Your task to perform on an android device: Open Google Maps Image 0: 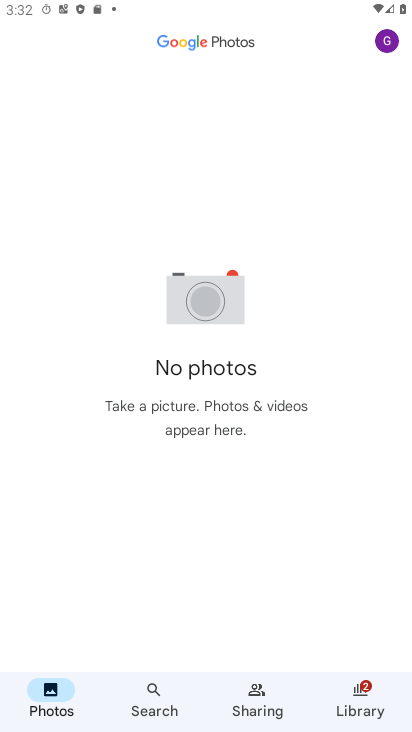
Step 0: press home button
Your task to perform on an android device: Open Google Maps Image 1: 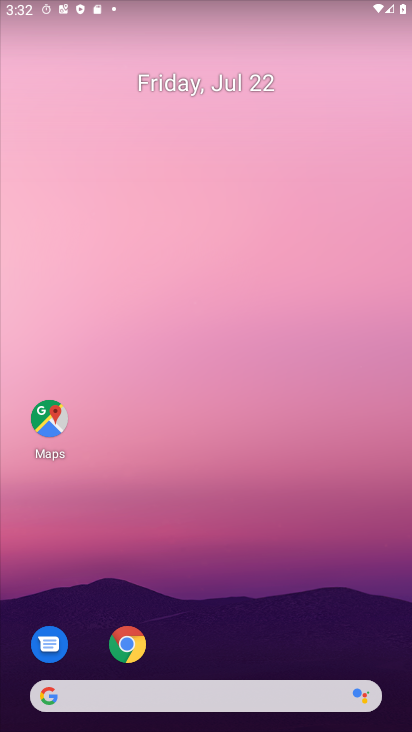
Step 1: drag from (257, 666) to (172, 17)
Your task to perform on an android device: Open Google Maps Image 2: 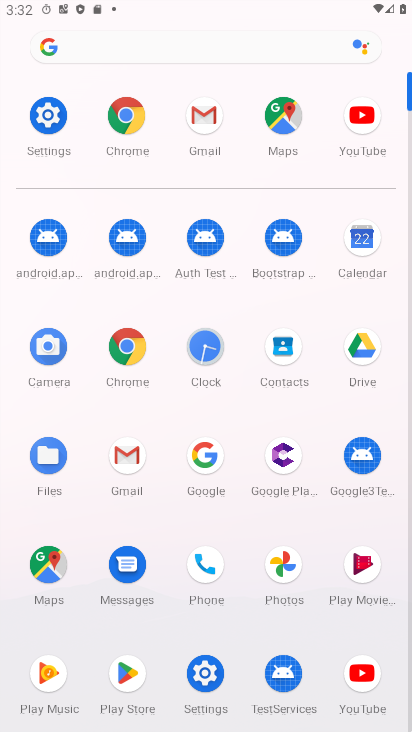
Step 2: click (268, 108)
Your task to perform on an android device: Open Google Maps Image 3: 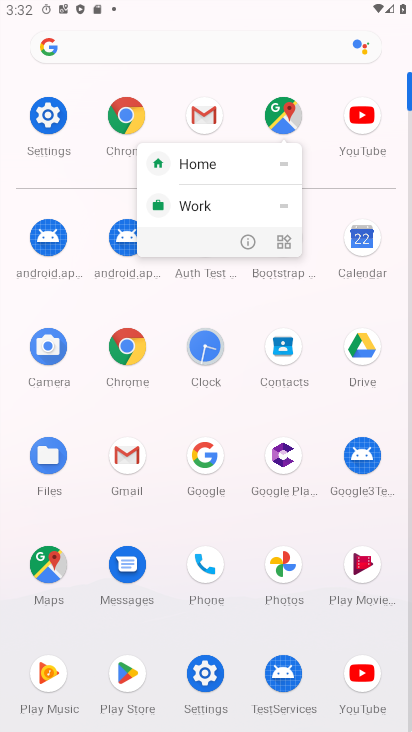
Step 3: click (280, 115)
Your task to perform on an android device: Open Google Maps Image 4: 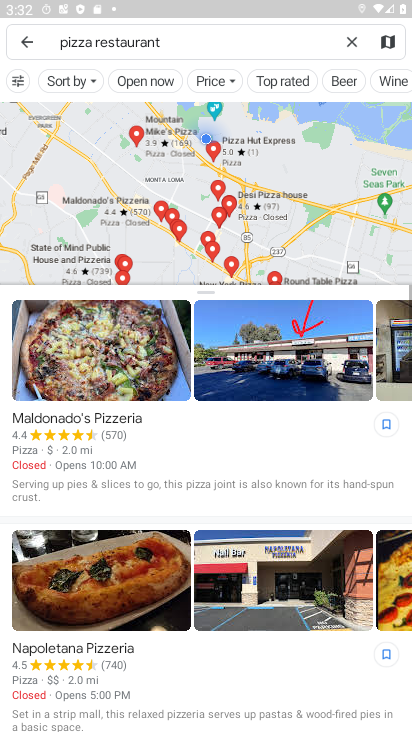
Step 4: click (348, 38)
Your task to perform on an android device: Open Google Maps Image 5: 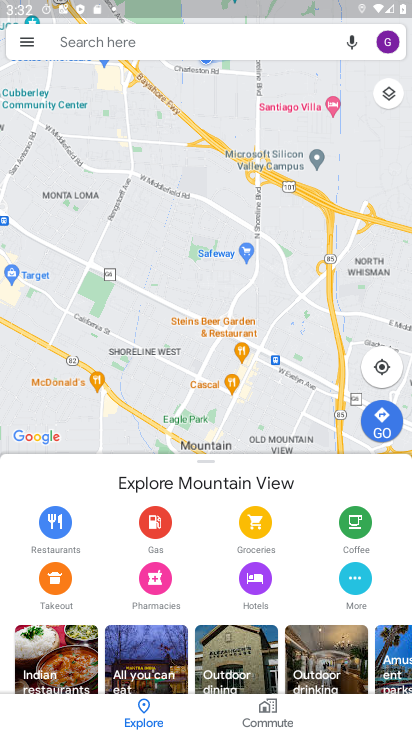
Step 5: task complete